Your task to perform on an android device: Do I have any events today? Image 0: 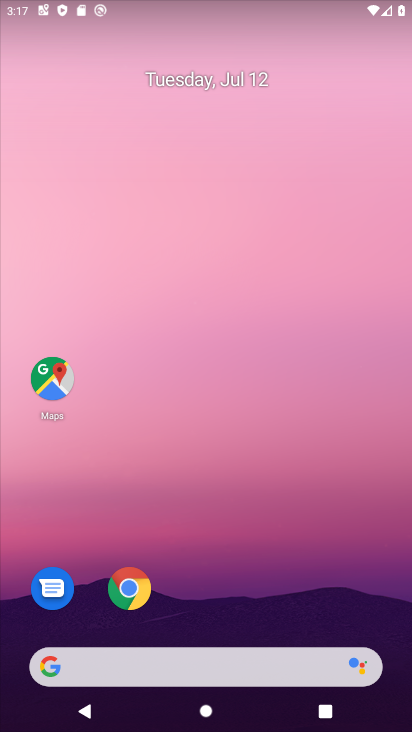
Step 0: drag from (273, 602) to (272, 0)
Your task to perform on an android device: Do I have any events today? Image 1: 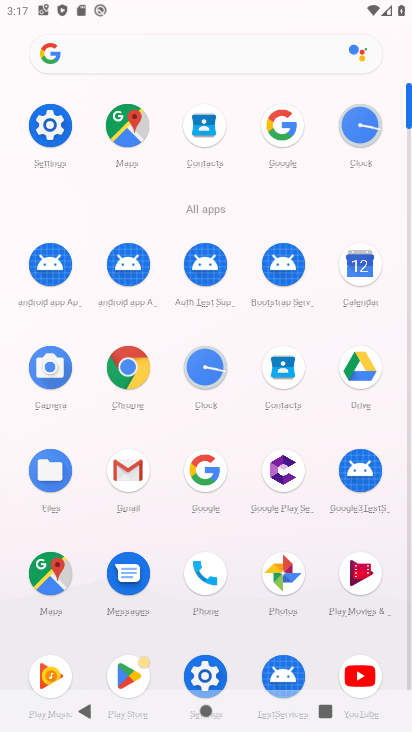
Step 1: click (356, 266)
Your task to perform on an android device: Do I have any events today? Image 2: 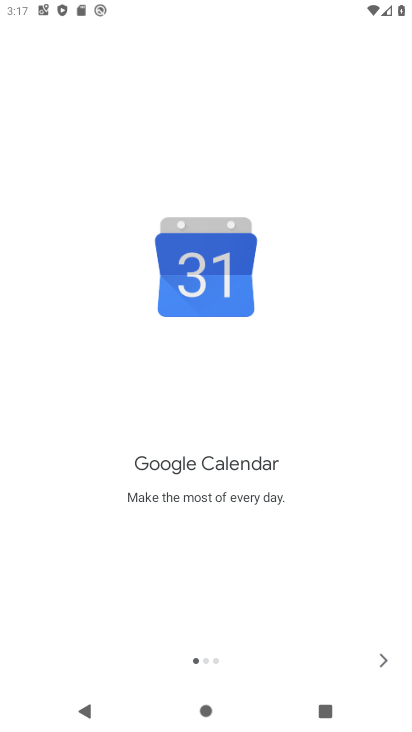
Step 2: click (386, 660)
Your task to perform on an android device: Do I have any events today? Image 3: 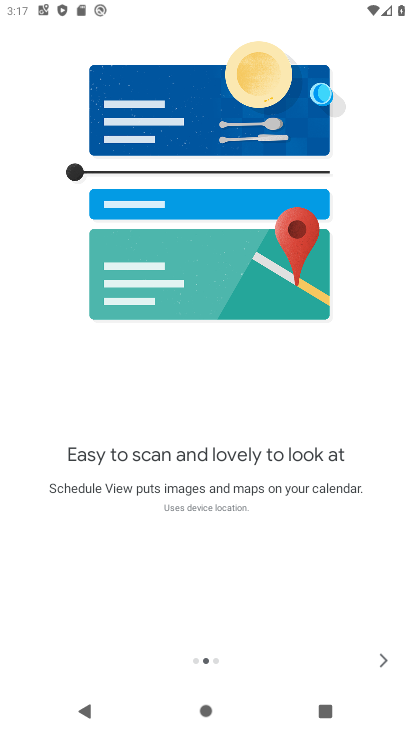
Step 3: click (386, 660)
Your task to perform on an android device: Do I have any events today? Image 4: 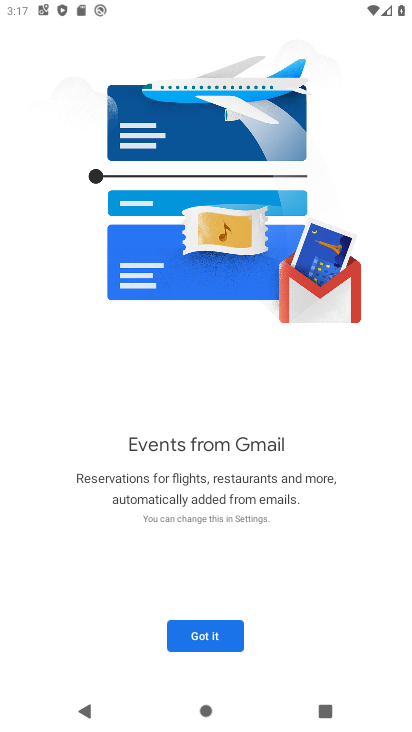
Step 4: click (205, 642)
Your task to perform on an android device: Do I have any events today? Image 5: 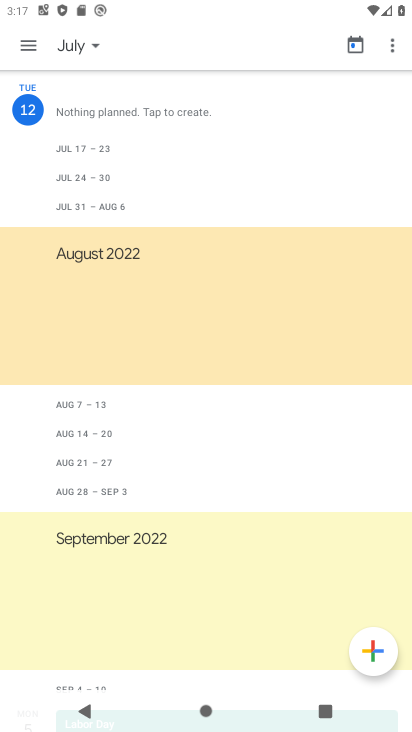
Step 5: click (75, 52)
Your task to perform on an android device: Do I have any events today? Image 6: 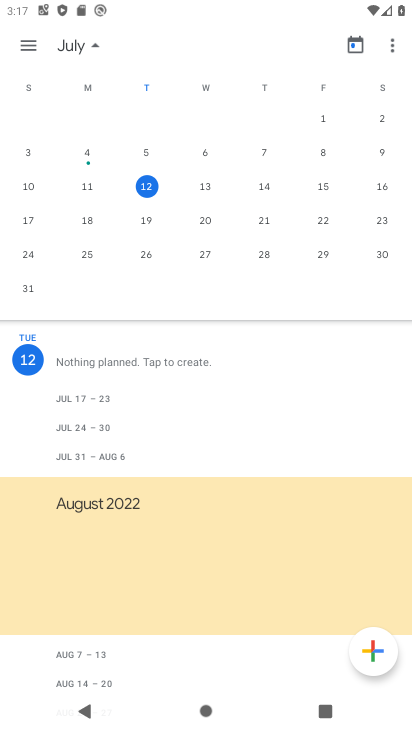
Step 6: click (142, 192)
Your task to perform on an android device: Do I have any events today? Image 7: 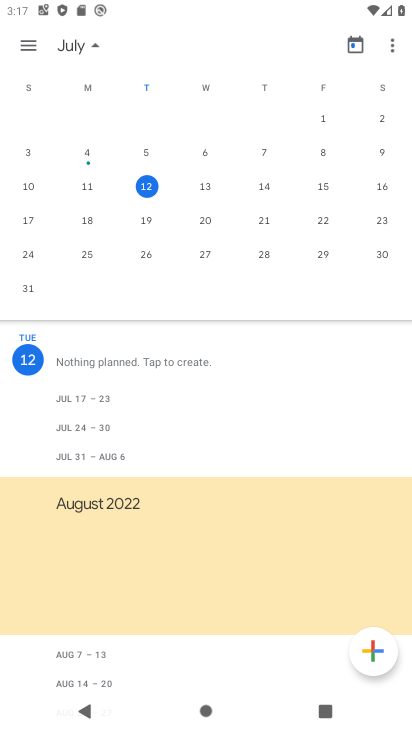
Step 7: task complete